Your task to perform on an android device: set the timer Image 0: 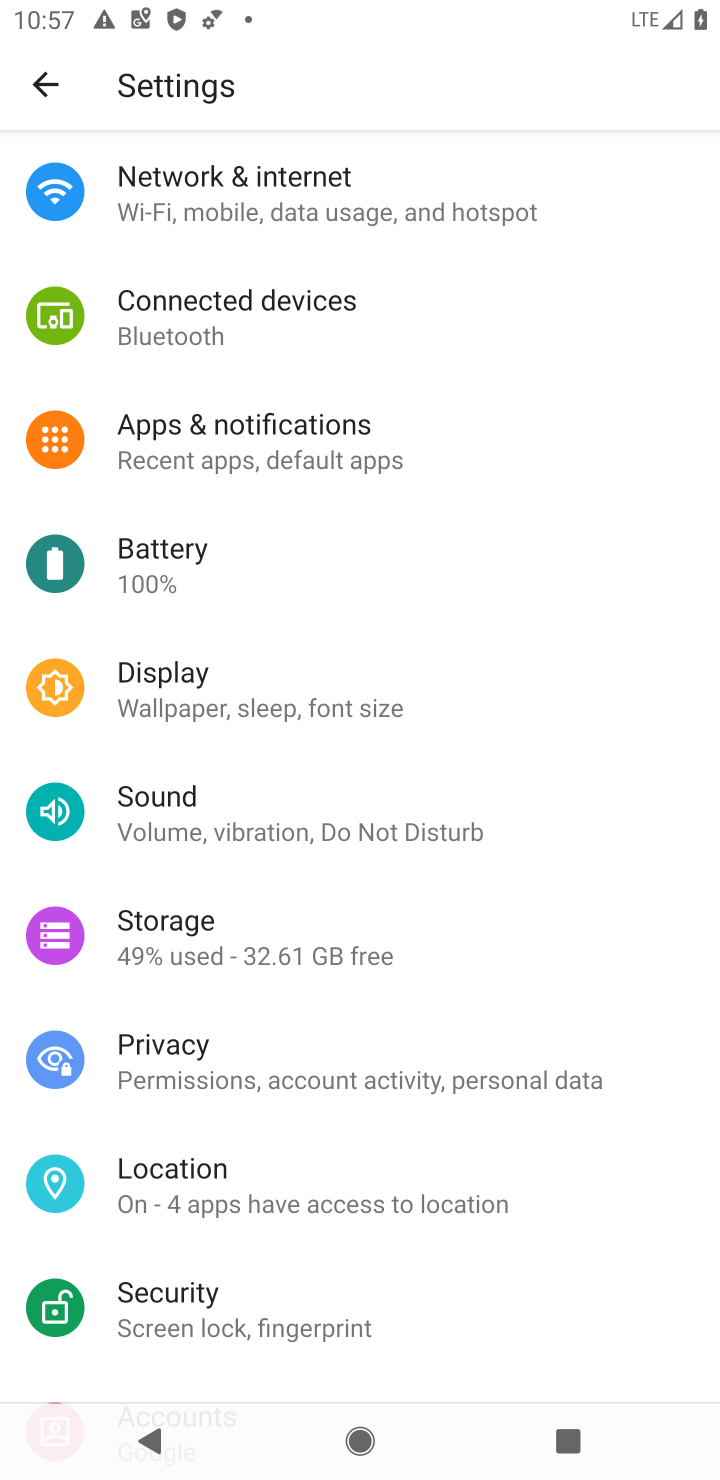
Step 0: press home button
Your task to perform on an android device: set the timer Image 1: 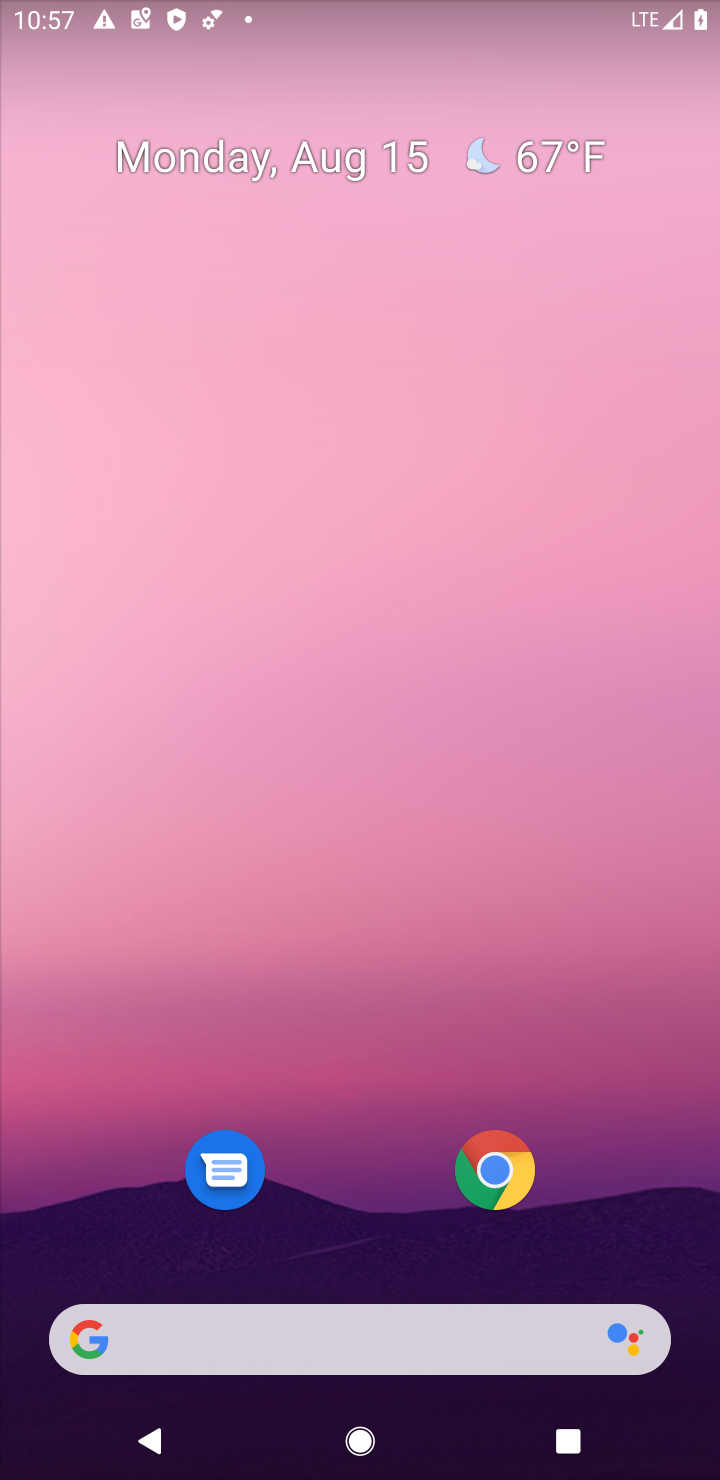
Step 1: drag from (379, 1183) to (419, 64)
Your task to perform on an android device: set the timer Image 2: 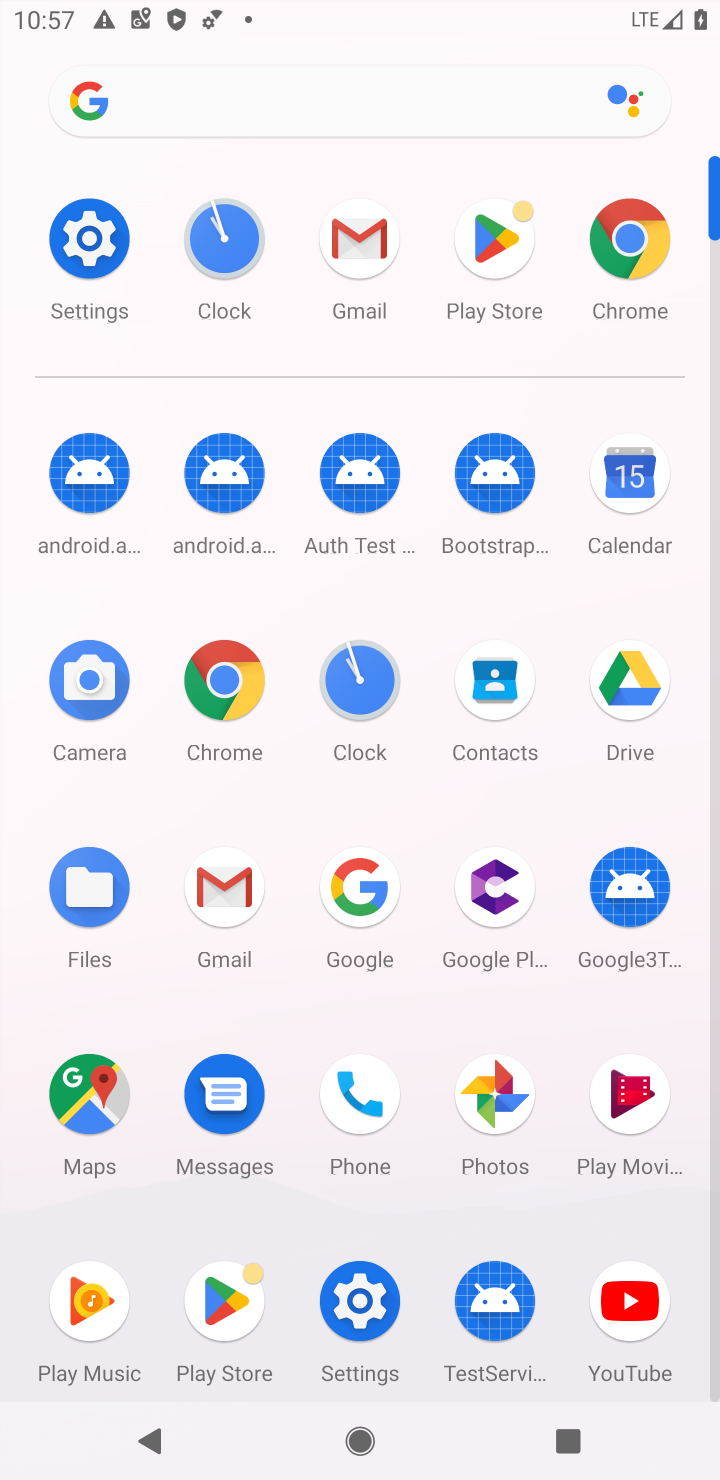
Step 2: click (350, 665)
Your task to perform on an android device: set the timer Image 3: 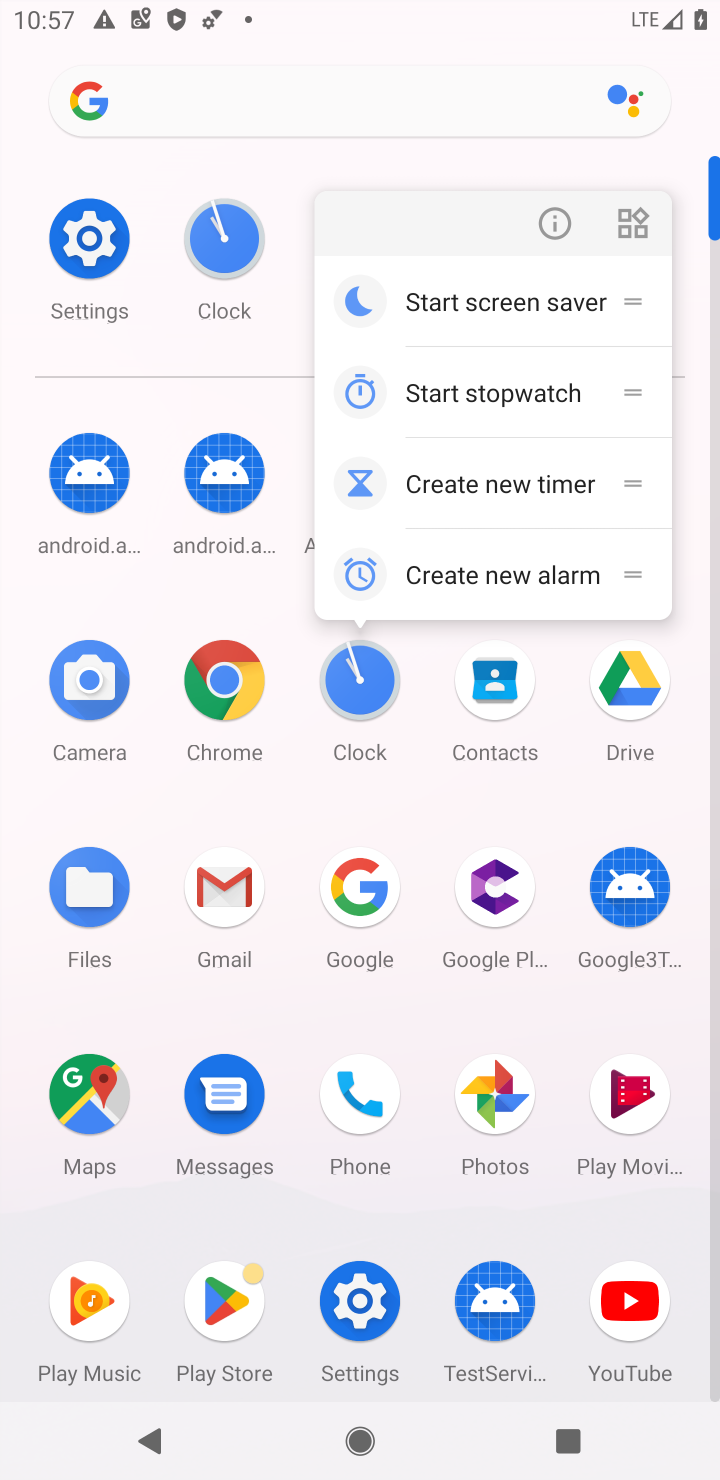
Step 3: click (359, 670)
Your task to perform on an android device: set the timer Image 4: 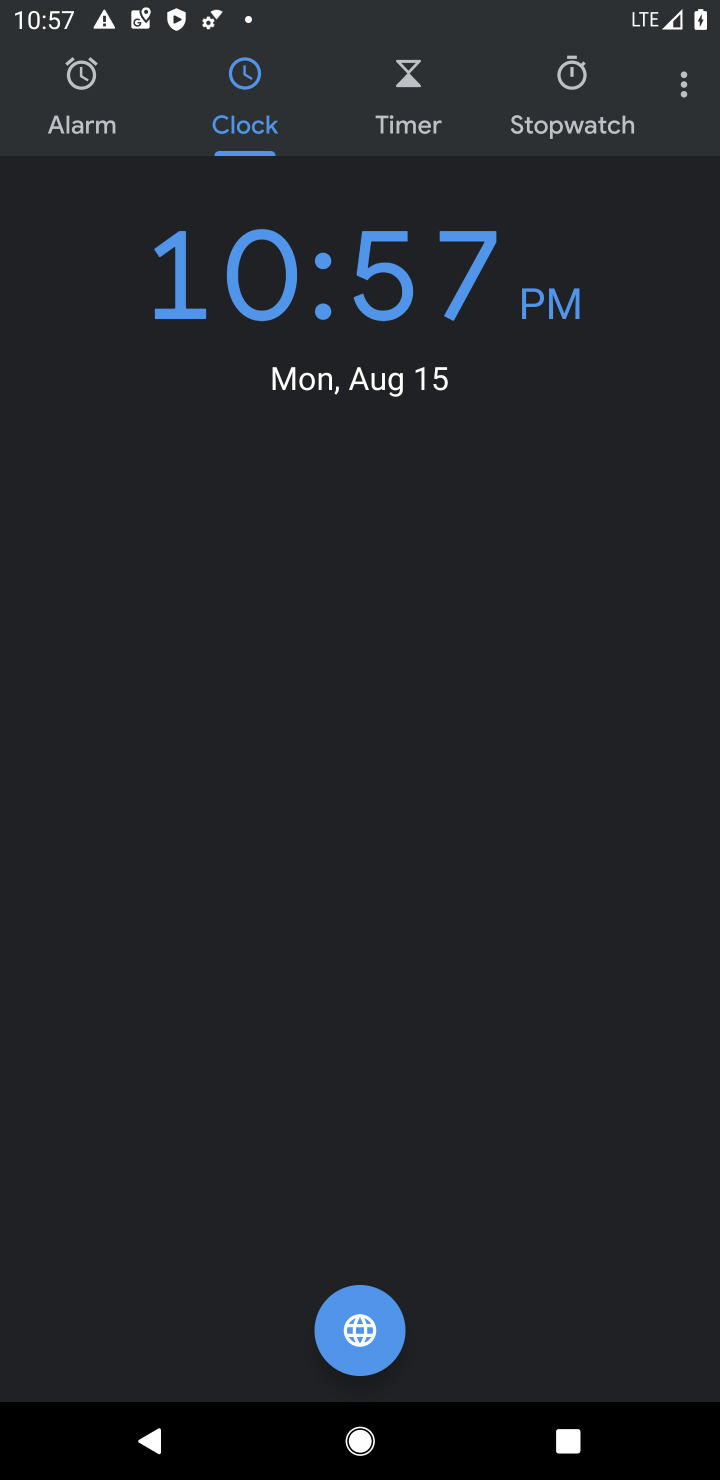
Step 4: click (570, 69)
Your task to perform on an android device: set the timer Image 5: 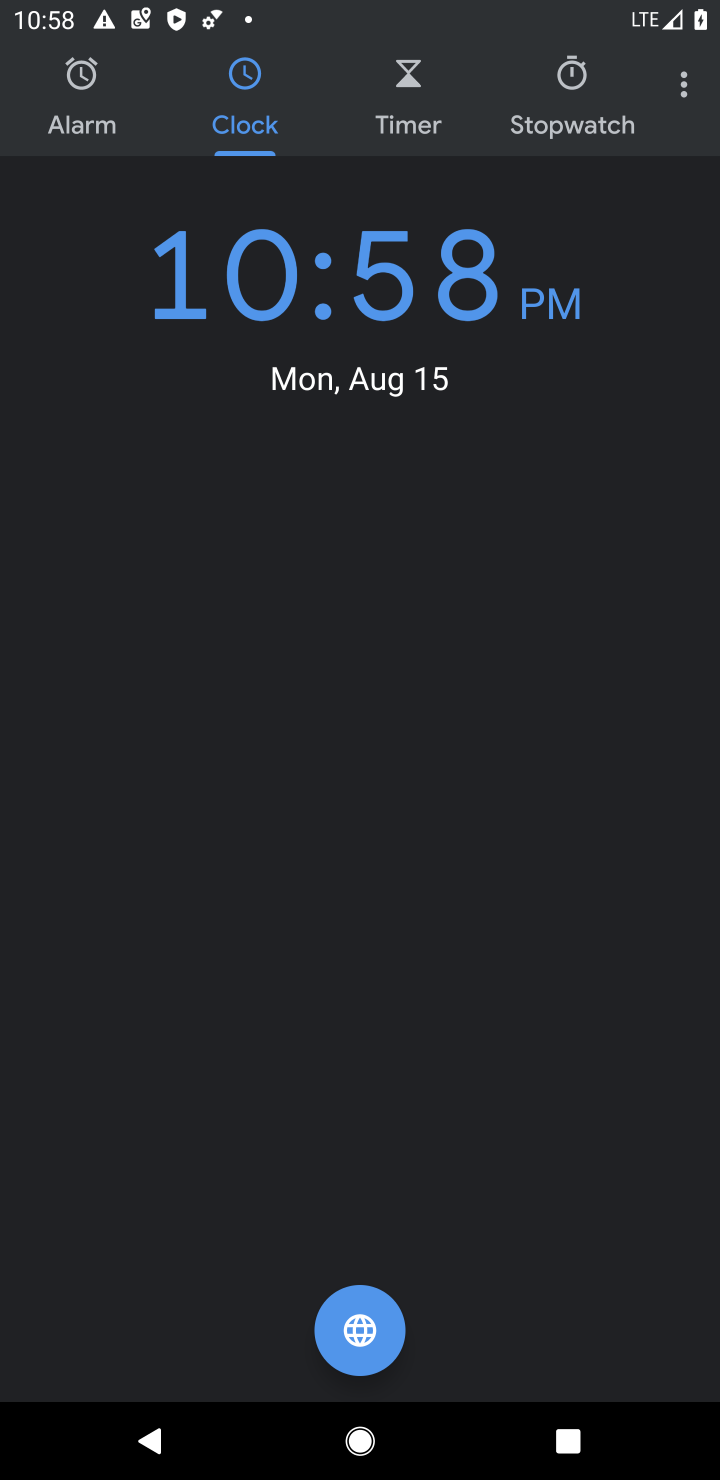
Step 5: click (574, 80)
Your task to perform on an android device: set the timer Image 6: 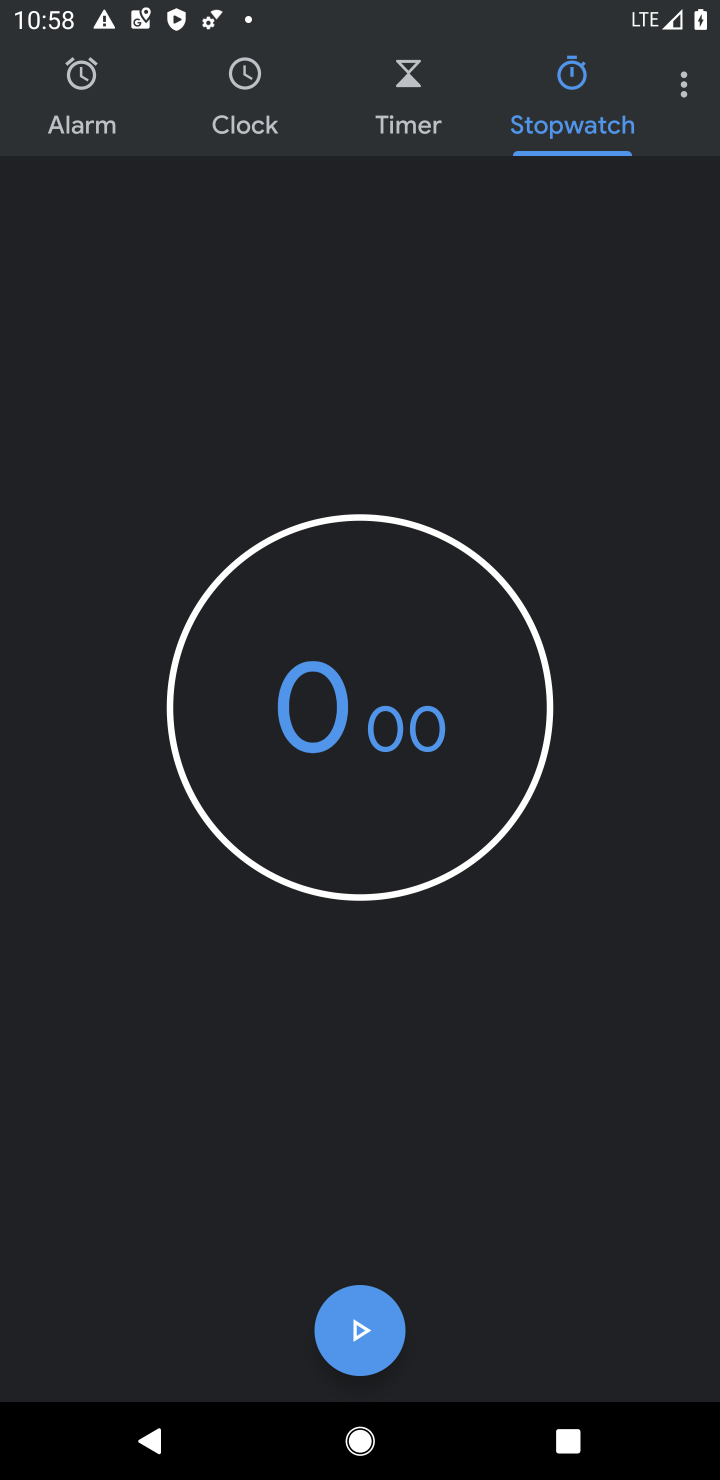
Step 6: click (352, 1316)
Your task to perform on an android device: set the timer Image 7: 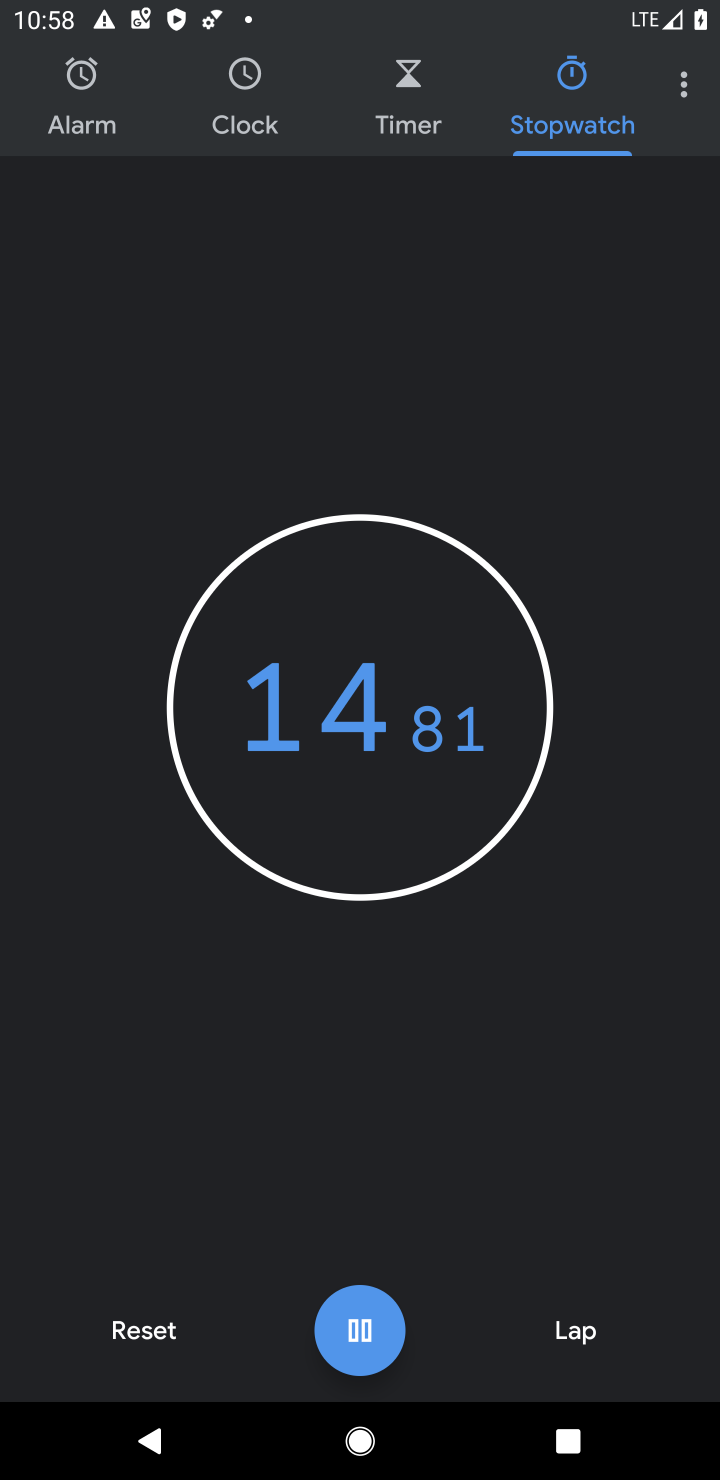
Step 7: click (124, 1340)
Your task to perform on an android device: set the timer Image 8: 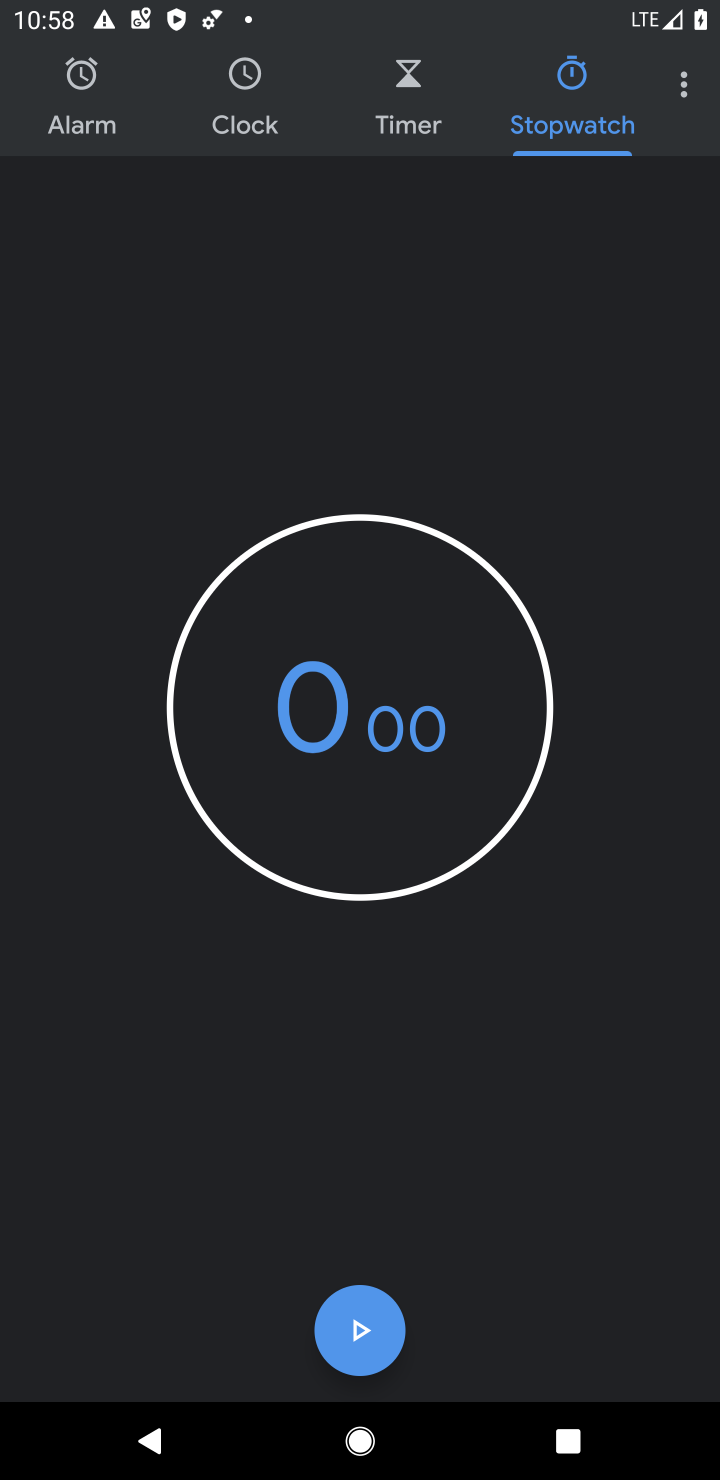
Step 8: task complete